Your task to perform on an android device: turn off airplane mode Image 0: 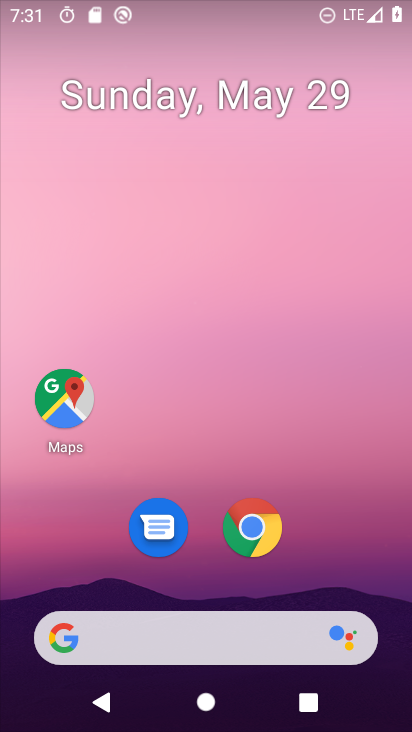
Step 0: click (389, 704)
Your task to perform on an android device: turn off airplane mode Image 1: 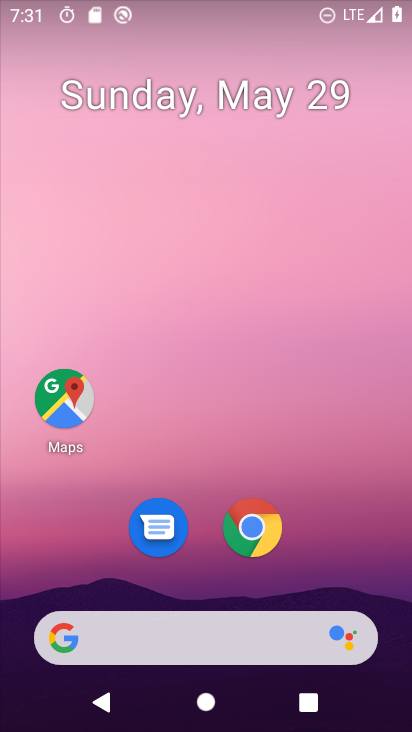
Step 1: task complete